Your task to perform on an android device: Open the calendar and show me this week's events? Image 0: 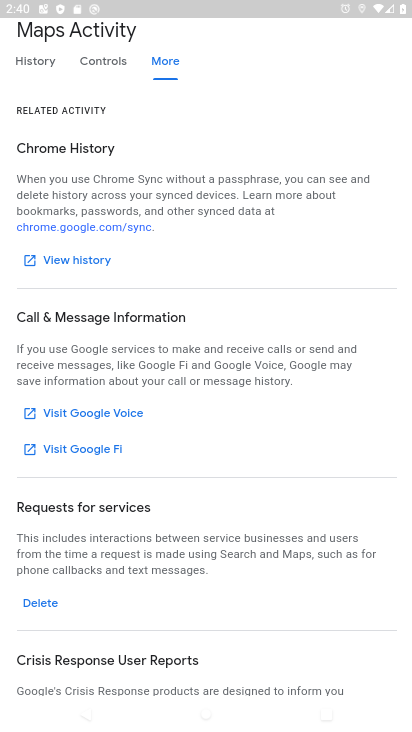
Step 0: press home button
Your task to perform on an android device: Open the calendar and show me this week's events? Image 1: 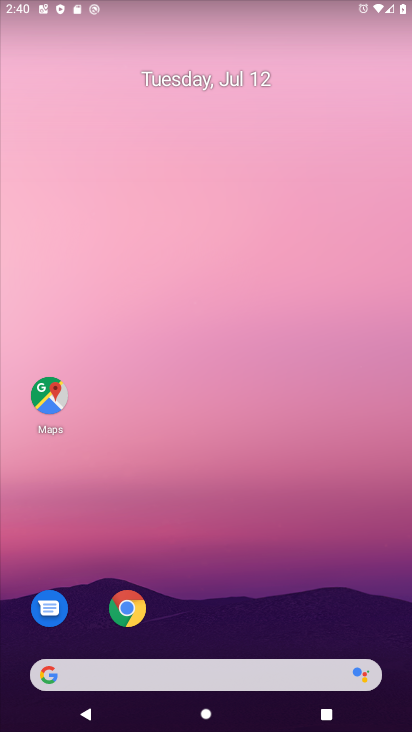
Step 1: drag from (253, 611) to (251, 95)
Your task to perform on an android device: Open the calendar and show me this week's events? Image 2: 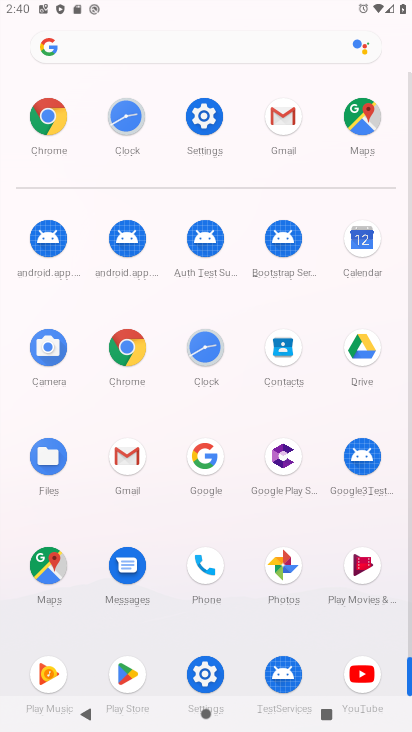
Step 2: click (354, 241)
Your task to perform on an android device: Open the calendar and show me this week's events? Image 3: 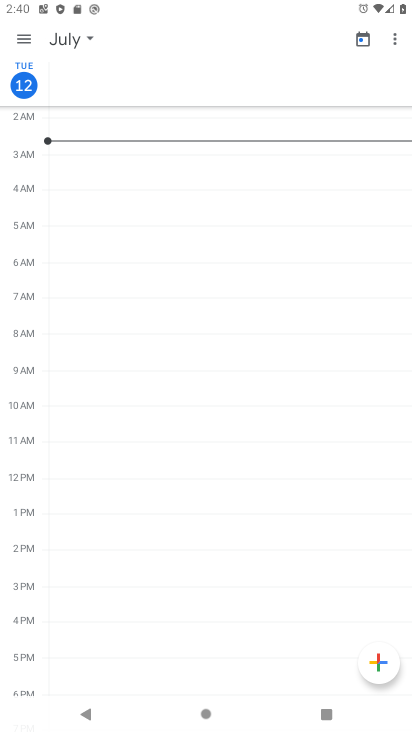
Step 3: click (61, 33)
Your task to perform on an android device: Open the calendar and show me this week's events? Image 4: 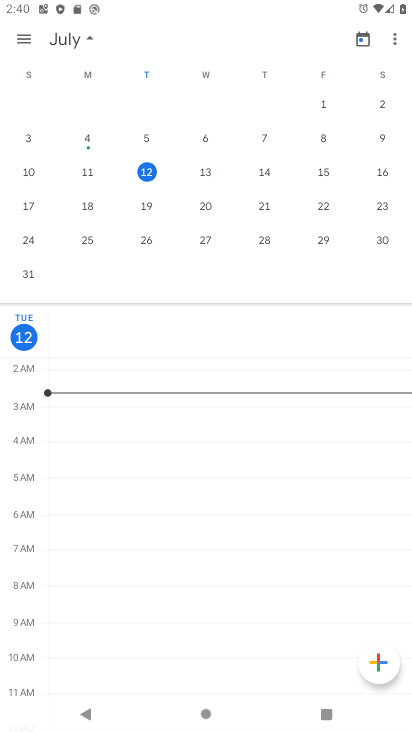
Step 4: click (382, 169)
Your task to perform on an android device: Open the calendar and show me this week's events? Image 5: 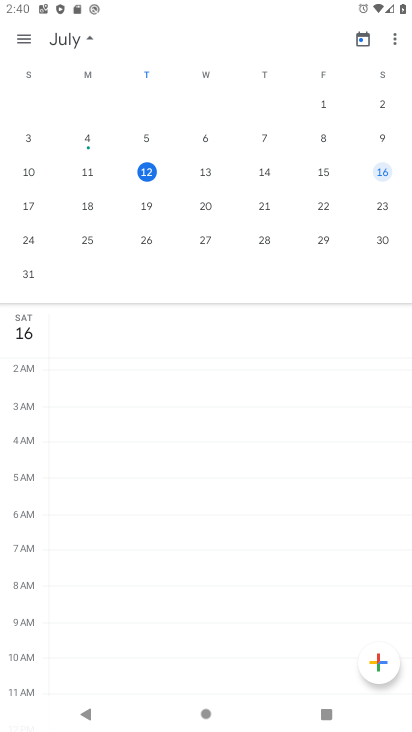
Step 5: click (18, 33)
Your task to perform on an android device: Open the calendar and show me this week's events? Image 6: 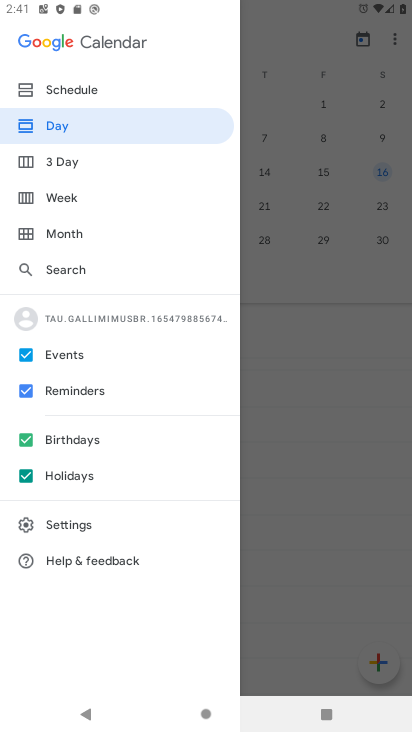
Step 6: click (73, 157)
Your task to perform on an android device: Open the calendar and show me this week's events? Image 7: 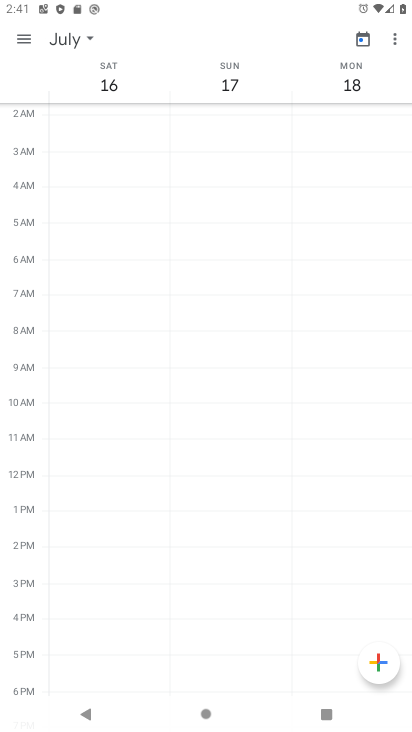
Step 7: drag from (101, 70) to (406, 80)
Your task to perform on an android device: Open the calendar and show me this week's events? Image 8: 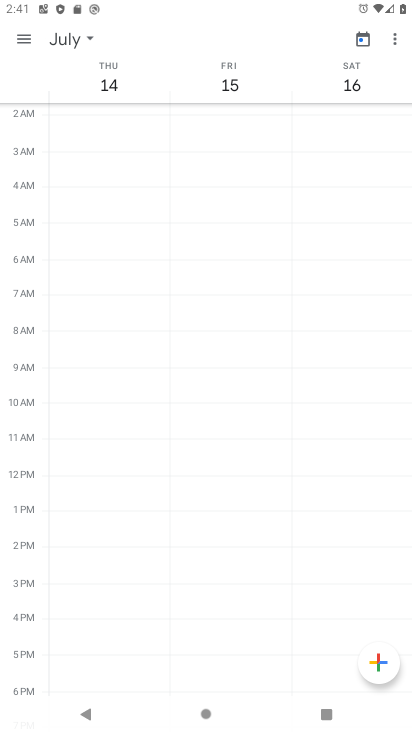
Step 8: click (21, 29)
Your task to perform on an android device: Open the calendar and show me this week's events? Image 9: 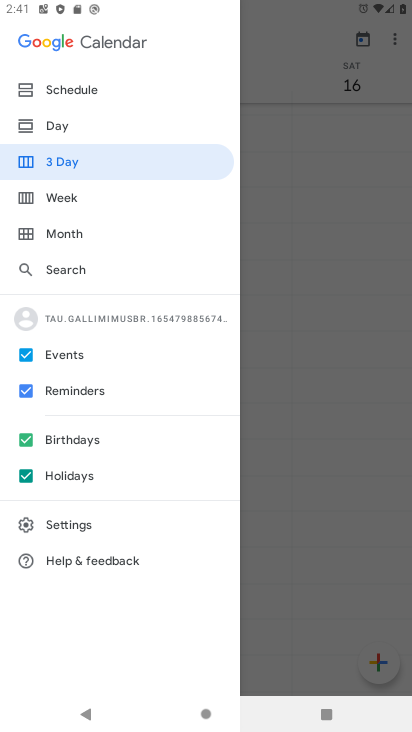
Step 9: click (68, 201)
Your task to perform on an android device: Open the calendar and show me this week's events? Image 10: 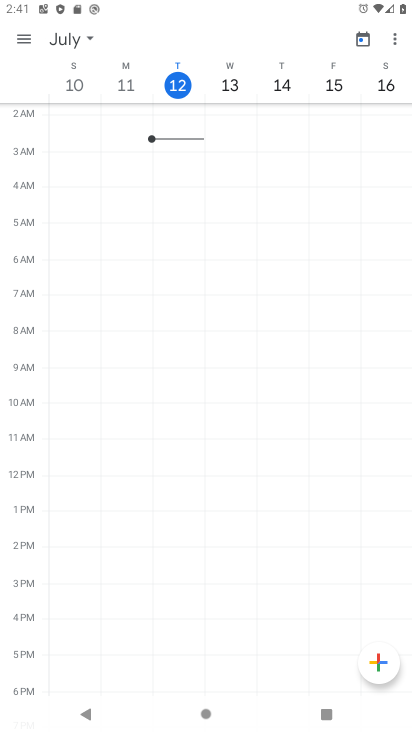
Step 10: task complete